Your task to perform on an android device: Go to Amazon Image 0: 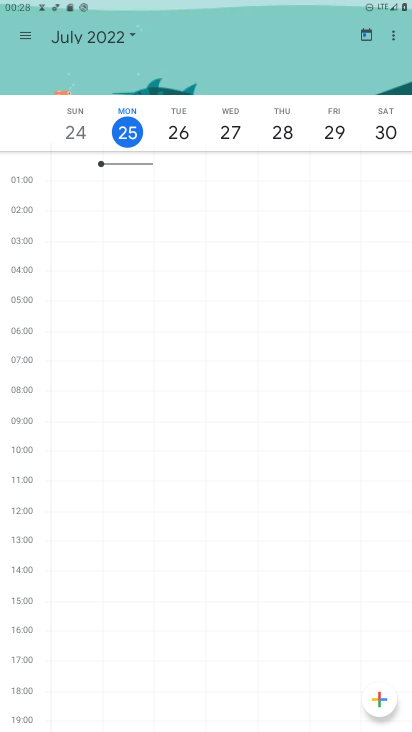
Step 0: press home button
Your task to perform on an android device: Go to Amazon Image 1: 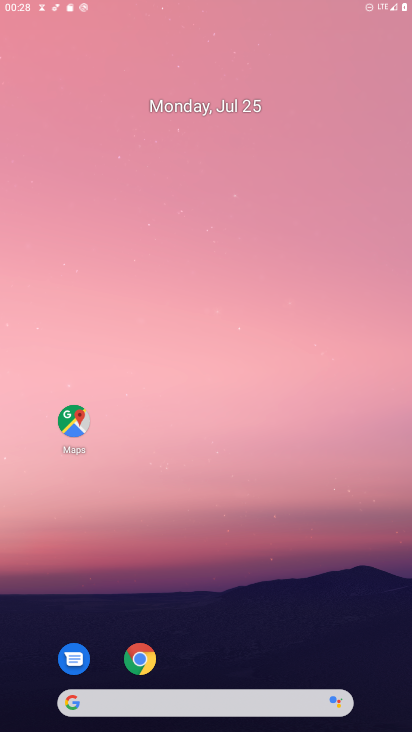
Step 1: drag from (222, 444) to (236, 205)
Your task to perform on an android device: Go to Amazon Image 2: 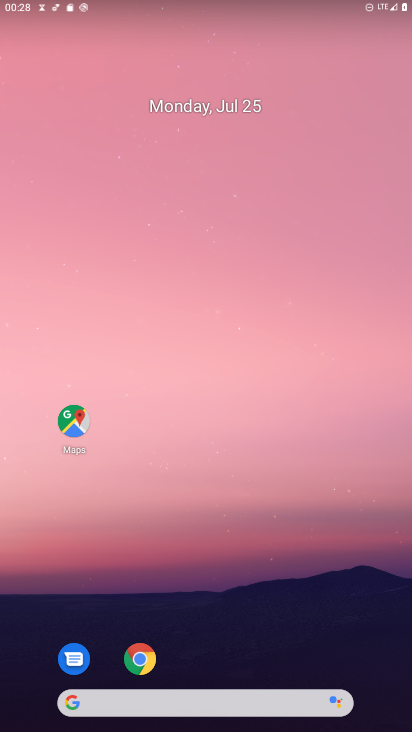
Step 2: click (146, 652)
Your task to perform on an android device: Go to Amazon Image 3: 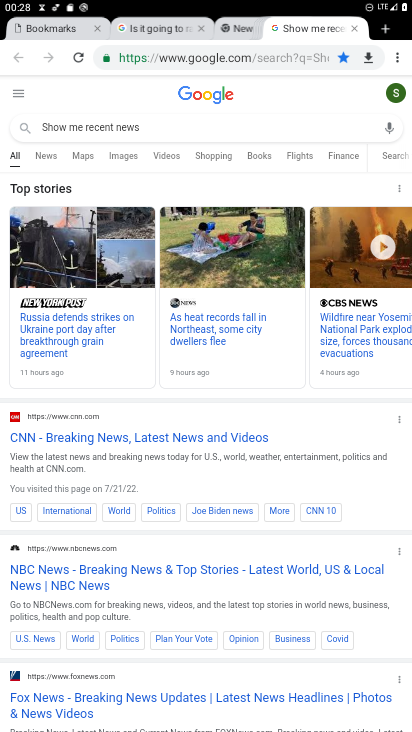
Step 3: click (387, 34)
Your task to perform on an android device: Go to Amazon Image 4: 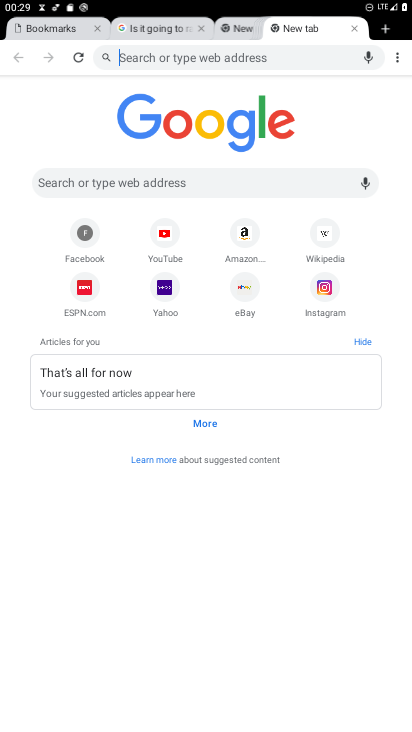
Step 4: click (245, 229)
Your task to perform on an android device: Go to Amazon Image 5: 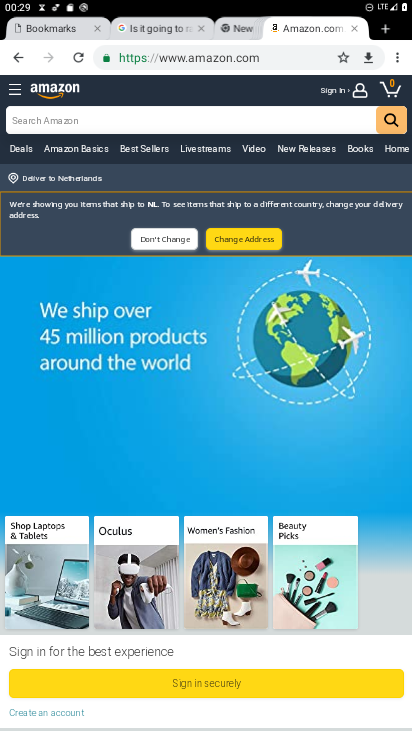
Step 5: task complete